Your task to perform on an android device: What's the weather? Image 0: 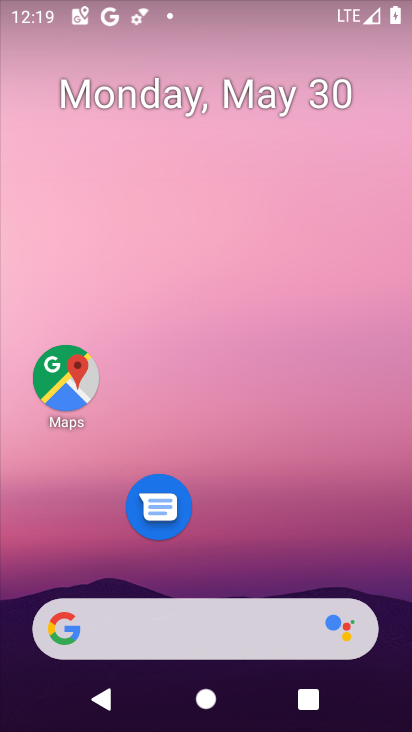
Step 0: drag from (280, 523) to (322, 32)
Your task to perform on an android device: What's the weather? Image 1: 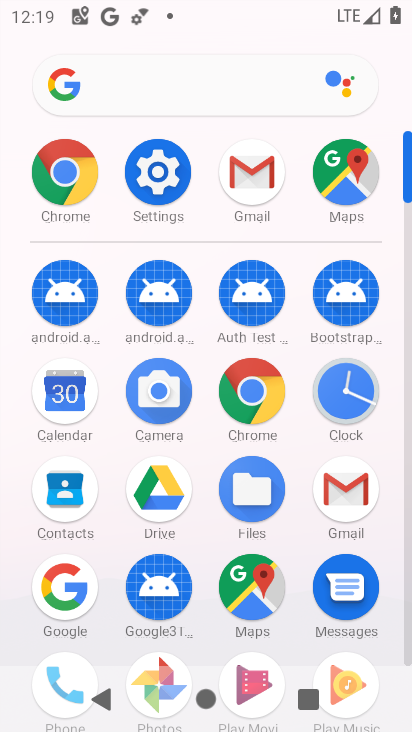
Step 1: click (259, 389)
Your task to perform on an android device: What's the weather? Image 2: 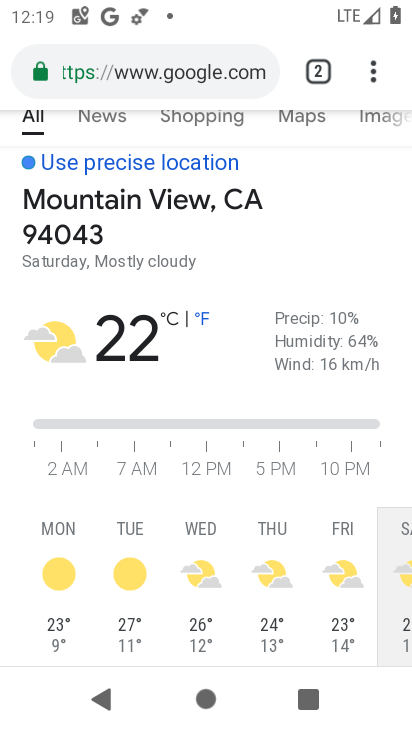
Step 2: click (202, 66)
Your task to perform on an android device: What's the weather? Image 3: 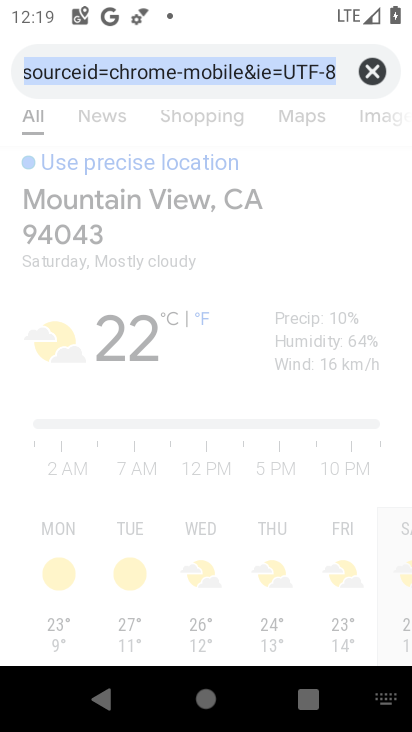
Step 3: click (370, 80)
Your task to perform on an android device: What's the weather? Image 4: 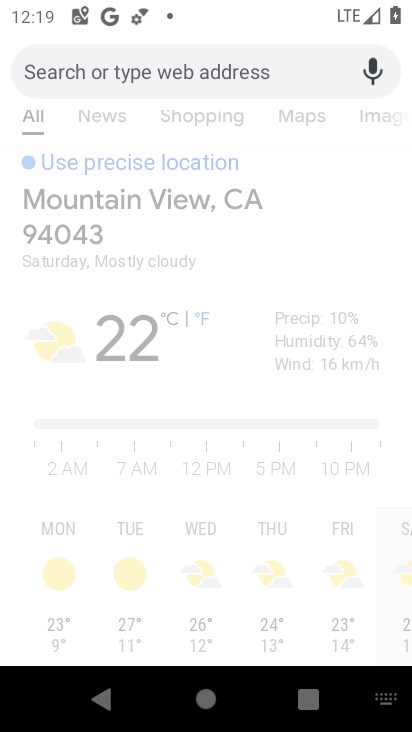
Step 4: type "What's the weather?"
Your task to perform on an android device: What's the weather? Image 5: 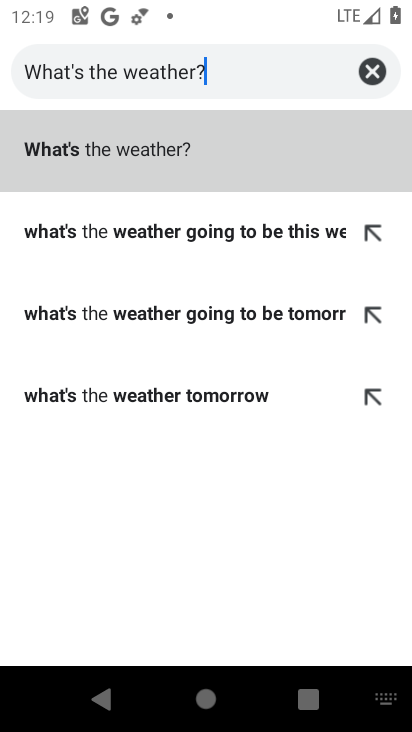
Step 5: click (54, 157)
Your task to perform on an android device: What's the weather? Image 6: 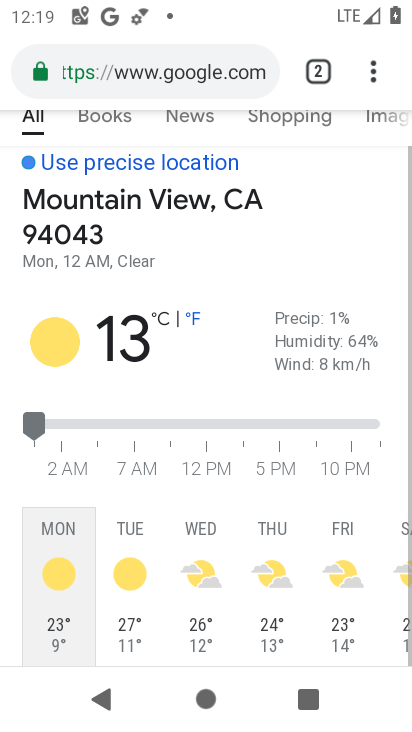
Step 6: task complete